Your task to perform on an android device: toggle priority inbox in the gmail app Image 0: 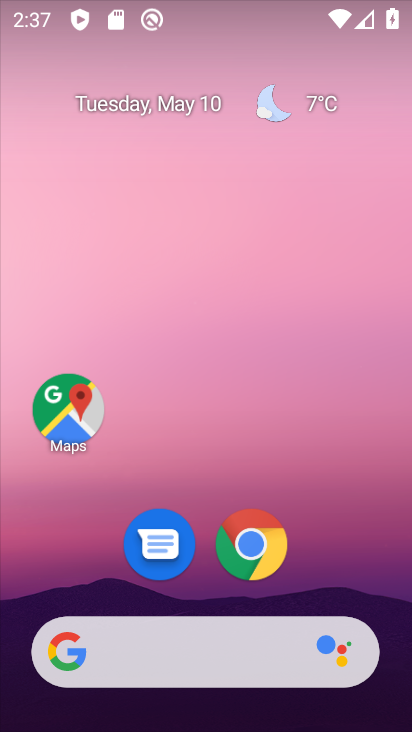
Step 0: click (347, 123)
Your task to perform on an android device: toggle priority inbox in the gmail app Image 1: 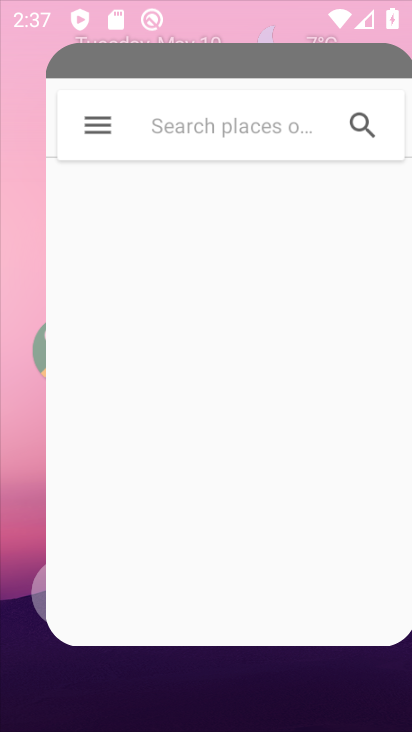
Step 1: drag from (340, 534) to (329, 179)
Your task to perform on an android device: toggle priority inbox in the gmail app Image 2: 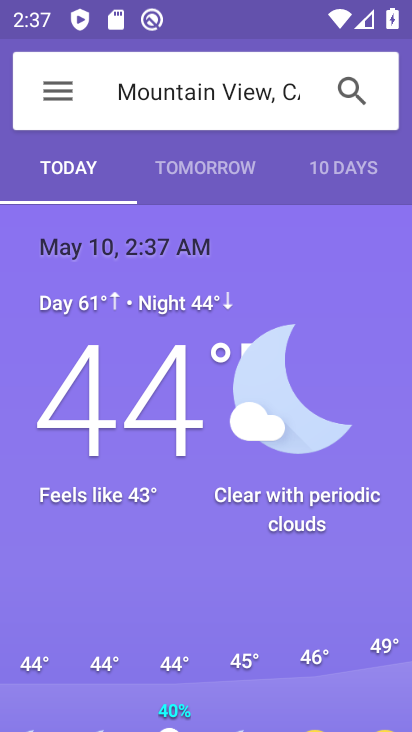
Step 2: press home button
Your task to perform on an android device: toggle priority inbox in the gmail app Image 3: 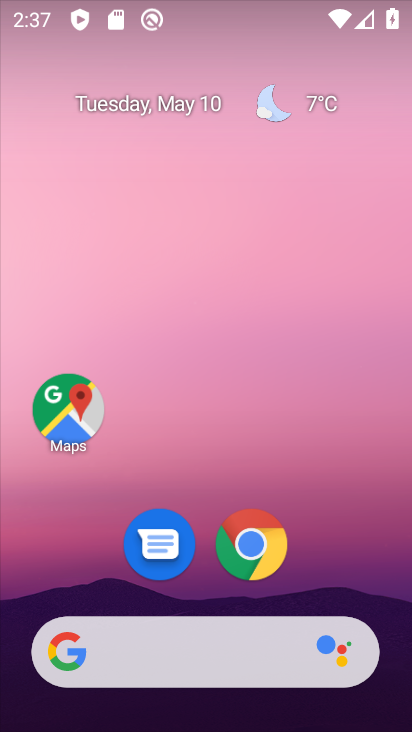
Step 3: drag from (357, 577) to (358, 94)
Your task to perform on an android device: toggle priority inbox in the gmail app Image 4: 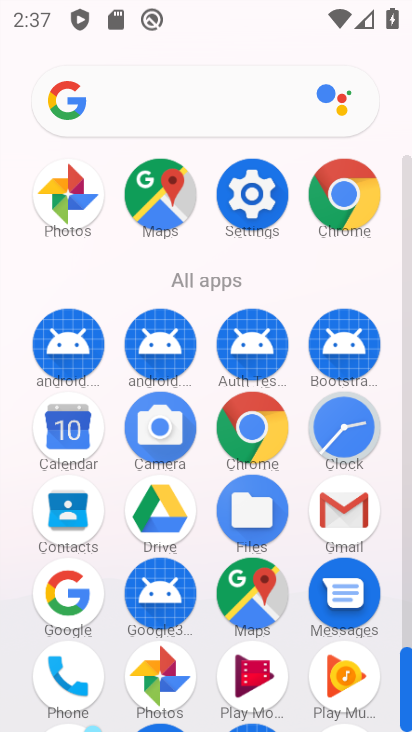
Step 4: click (341, 516)
Your task to perform on an android device: toggle priority inbox in the gmail app Image 5: 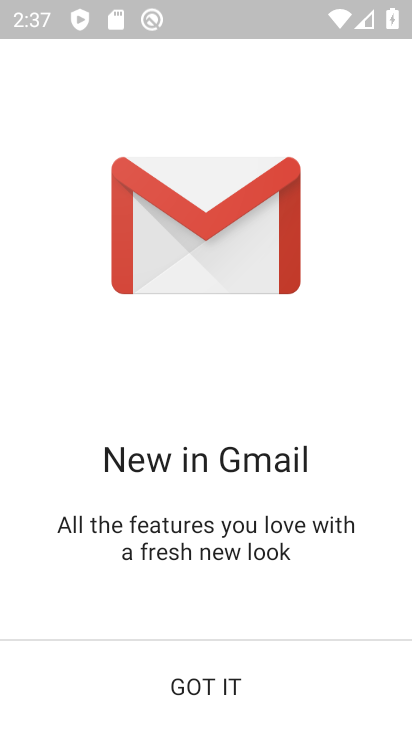
Step 5: click (219, 683)
Your task to perform on an android device: toggle priority inbox in the gmail app Image 6: 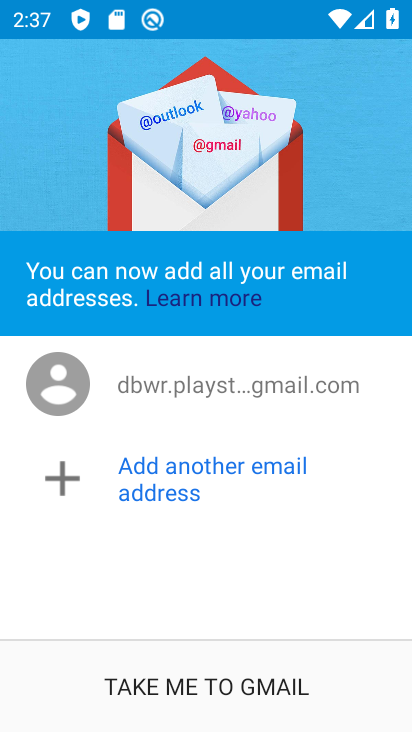
Step 6: click (221, 681)
Your task to perform on an android device: toggle priority inbox in the gmail app Image 7: 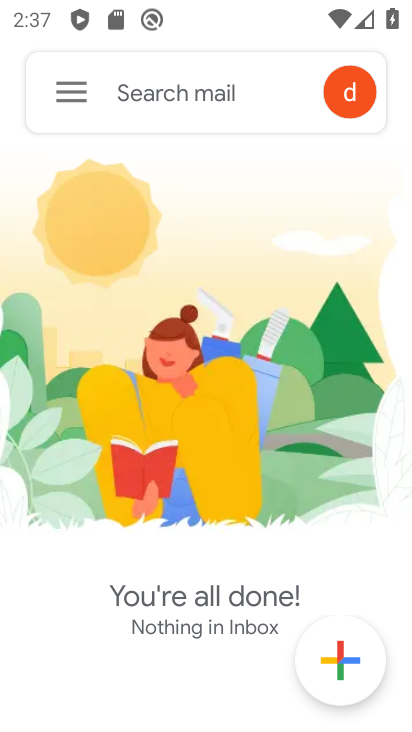
Step 7: click (60, 82)
Your task to perform on an android device: toggle priority inbox in the gmail app Image 8: 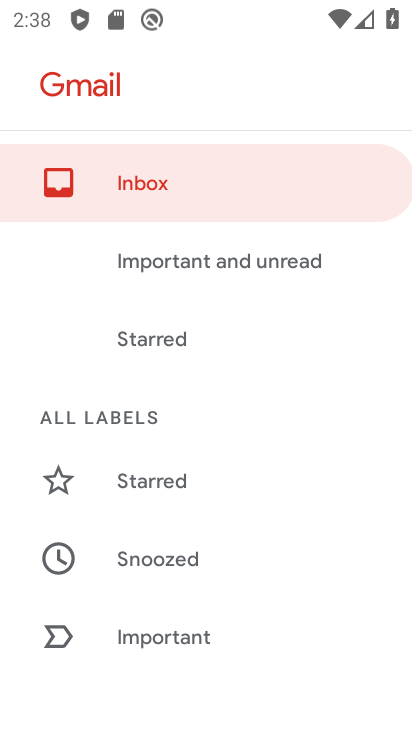
Step 8: drag from (201, 672) to (238, 318)
Your task to perform on an android device: toggle priority inbox in the gmail app Image 9: 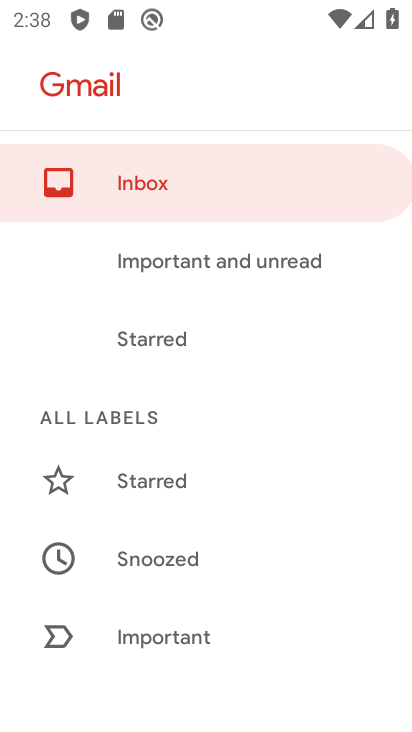
Step 9: drag from (202, 665) to (251, 366)
Your task to perform on an android device: toggle priority inbox in the gmail app Image 10: 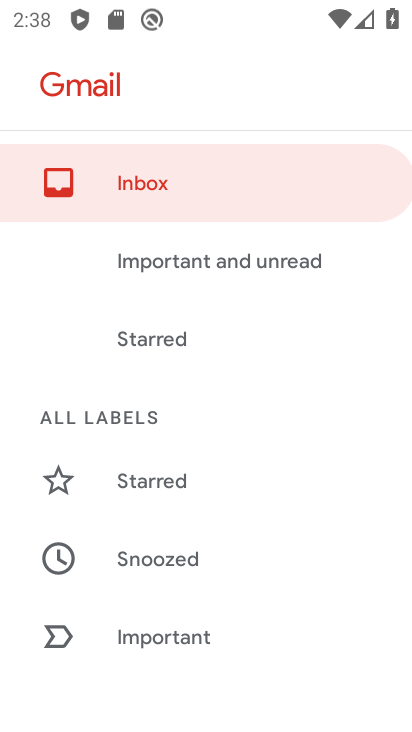
Step 10: drag from (184, 607) to (204, 187)
Your task to perform on an android device: toggle priority inbox in the gmail app Image 11: 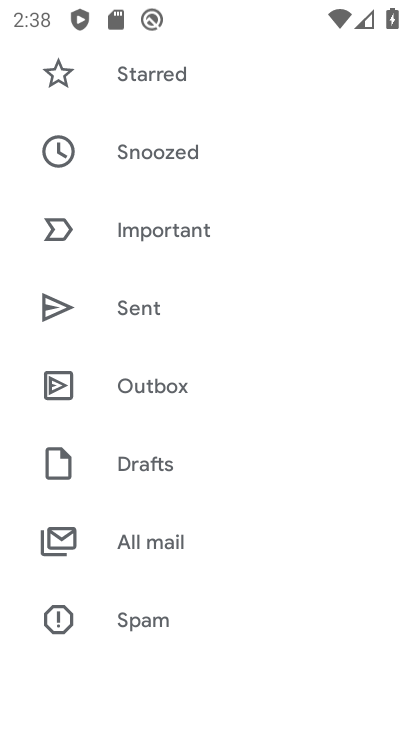
Step 11: drag from (189, 615) to (191, 226)
Your task to perform on an android device: toggle priority inbox in the gmail app Image 12: 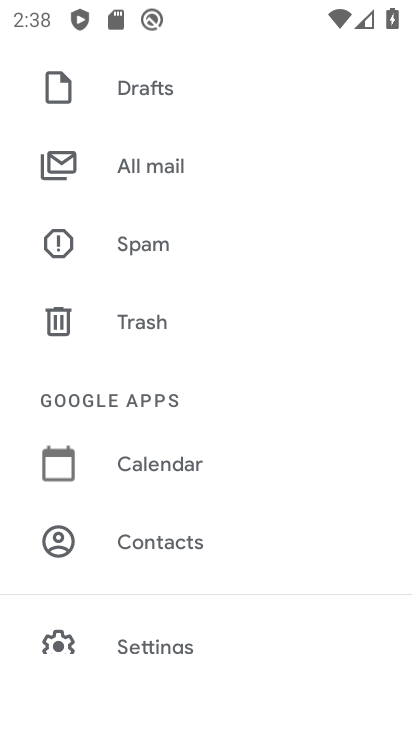
Step 12: drag from (197, 619) to (203, 265)
Your task to perform on an android device: toggle priority inbox in the gmail app Image 13: 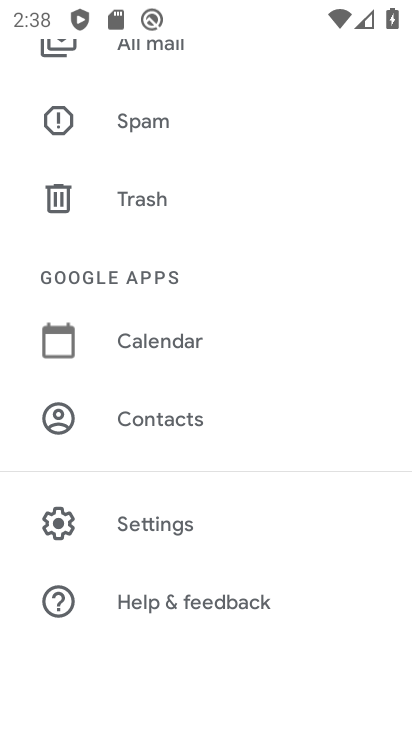
Step 13: click (178, 517)
Your task to perform on an android device: toggle priority inbox in the gmail app Image 14: 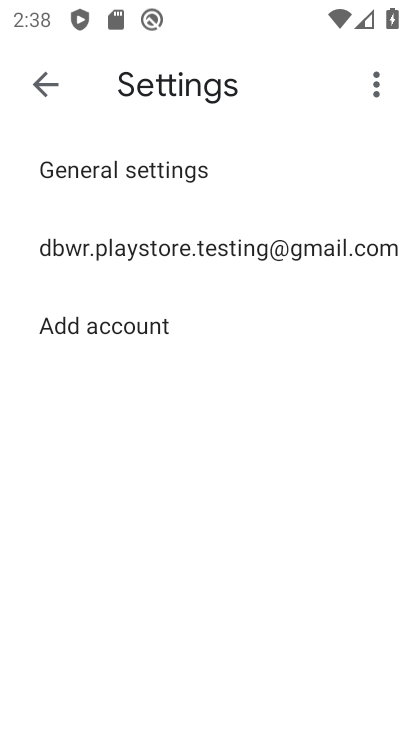
Step 14: click (272, 234)
Your task to perform on an android device: toggle priority inbox in the gmail app Image 15: 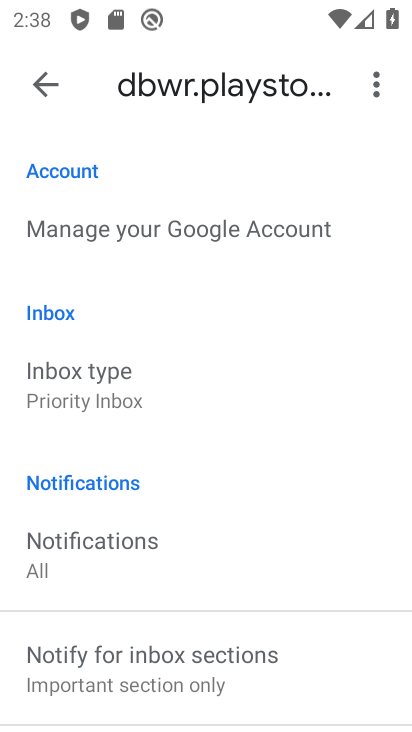
Step 15: drag from (230, 608) to (258, 301)
Your task to perform on an android device: toggle priority inbox in the gmail app Image 16: 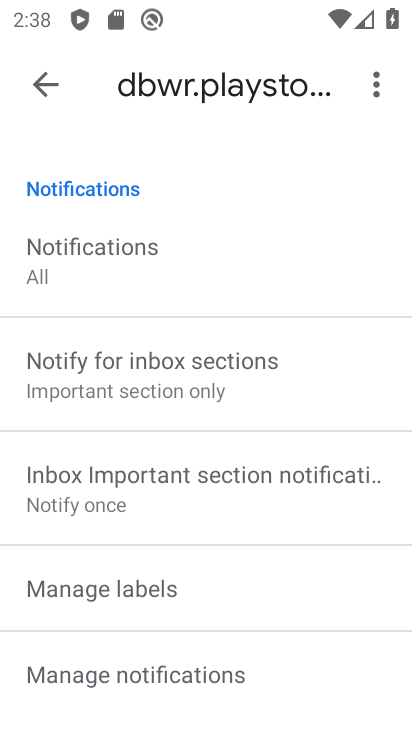
Step 16: drag from (275, 673) to (320, 343)
Your task to perform on an android device: toggle priority inbox in the gmail app Image 17: 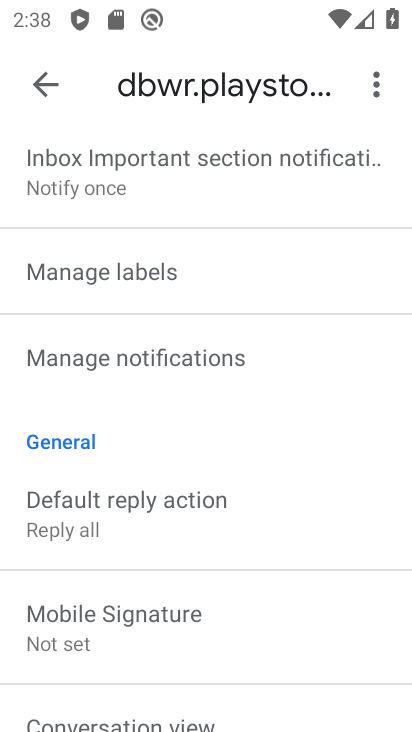
Step 17: drag from (288, 582) to (296, 230)
Your task to perform on an android device: toggle priority inbox in the gmail app Image 18: 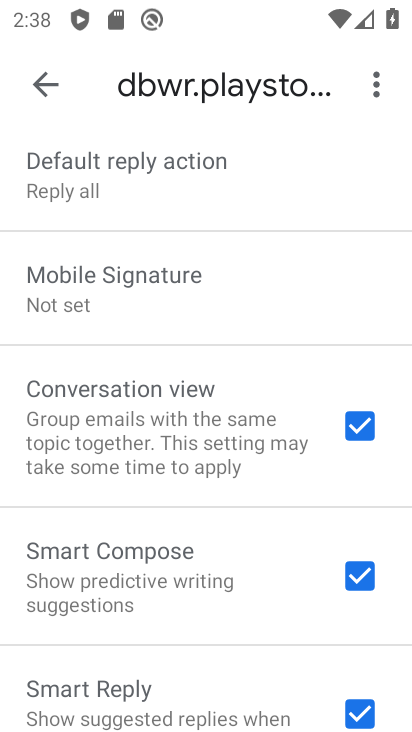
Step 18: drag from (241, 622) to (237, 249)
Your task to perform on an android device: toggle priority inbox in the gmail app Image 19: 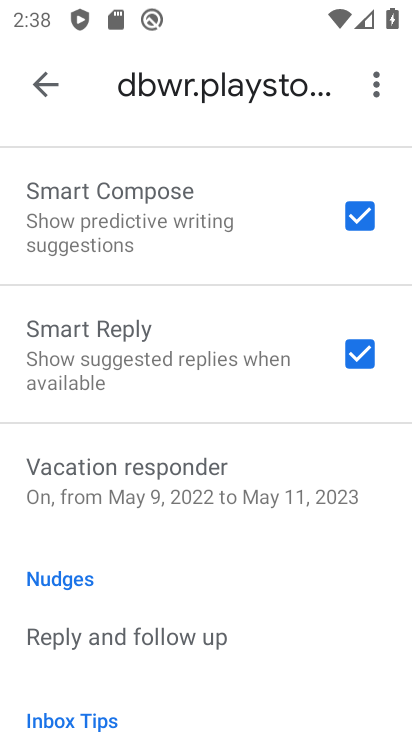
Step 19: drag from (236, 600) to (235, 244)
Your task to perform on an android device: toggle priority inbox in the gmail app Image 20: 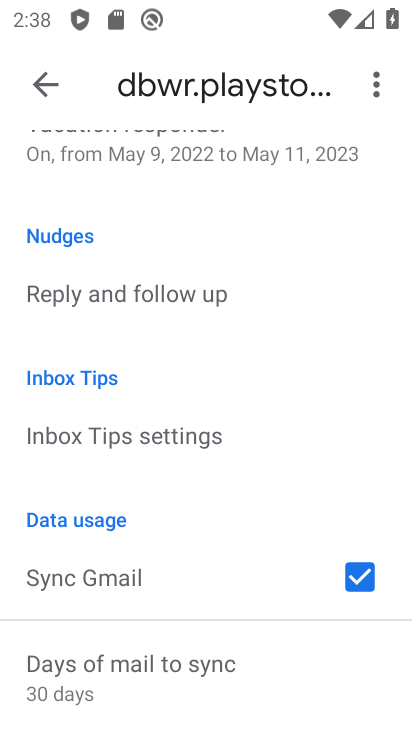
Step 20: drag from (260, 161) to (255, 706)
Your task to perform on an android device: toggle priority inbox in the gmail app Image 21: 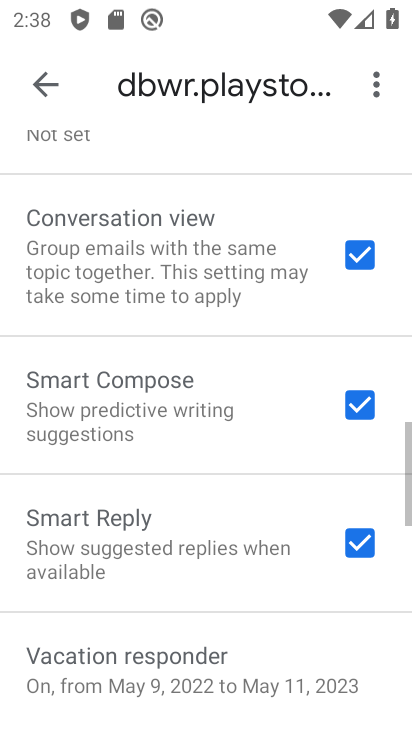
Step 21: drag from (226, 125) to (220, 640)
Your task to perform on an android device: toggle priority inbox in the gmail app Image 22: 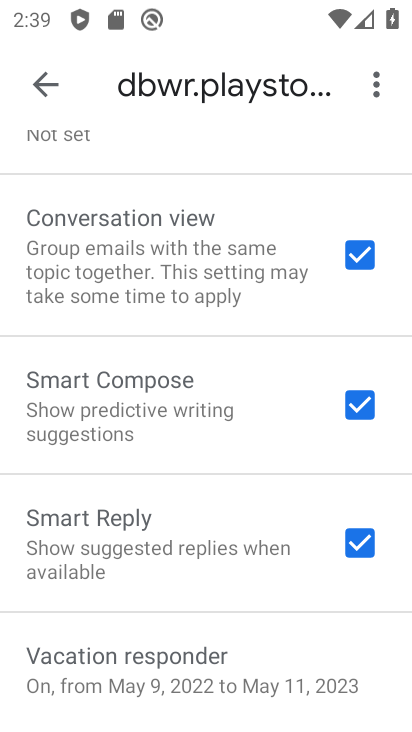
Step 22: drag from (224, 238) to (184, 677)
Your task to perform on an android device: toggle priority inbox in the gmail app Image 23: 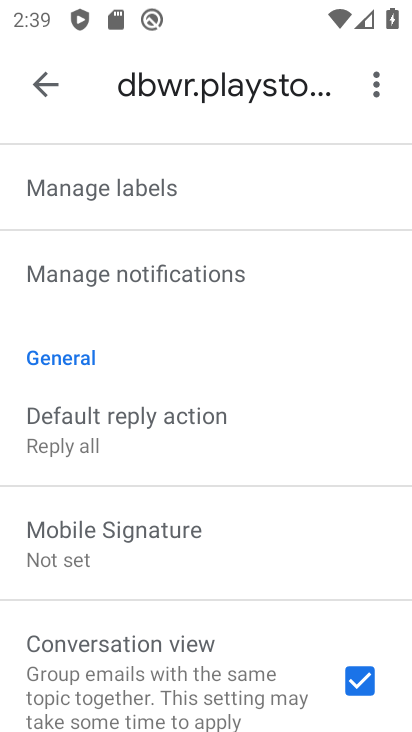
Step 23: drag from (199, 298) to (164, 660)
Your task to perform on an android device: toggle priority inbox in the gmail app Image 24: 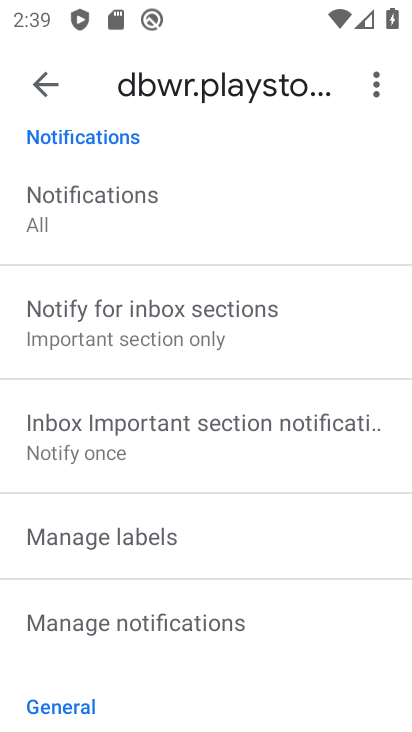
Step 24: drag from (223, 279) to (186, 626)
Your task to perform on an android device: toggle priority inbox in the gmail app Image 25: 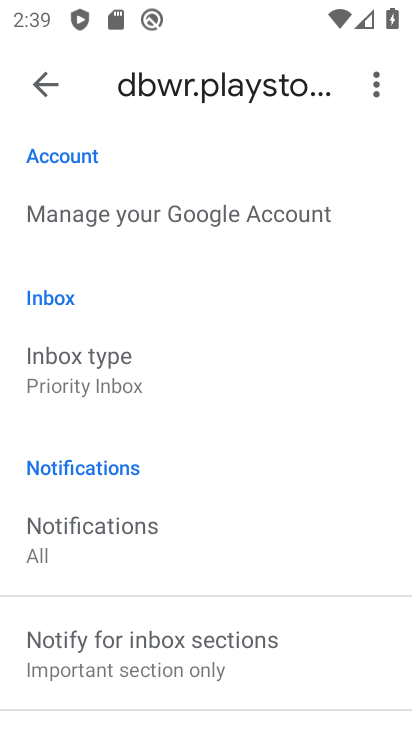
Step 25: click (123, 369)
Your task to perform on an android device: toggle priority inbox in the gmail app Image 26: 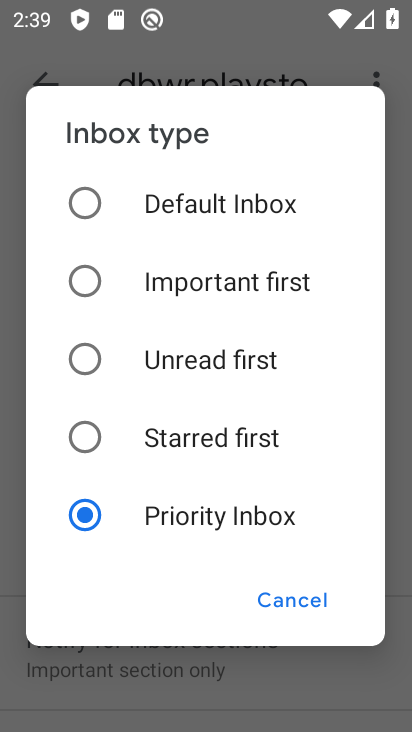
Step 26: click (96, 218)
Your task to perform on an android device: toggle priority inbox in the gmail app Image 27: 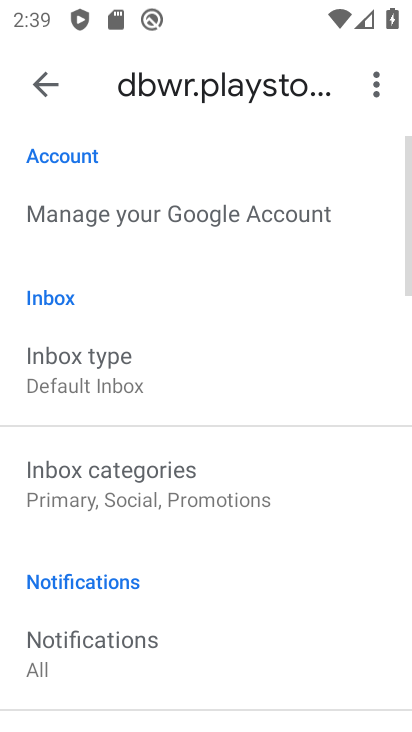
Step 27: task complete